Your task to perform on an android device: Open a new tab in the chrome app Image 0: 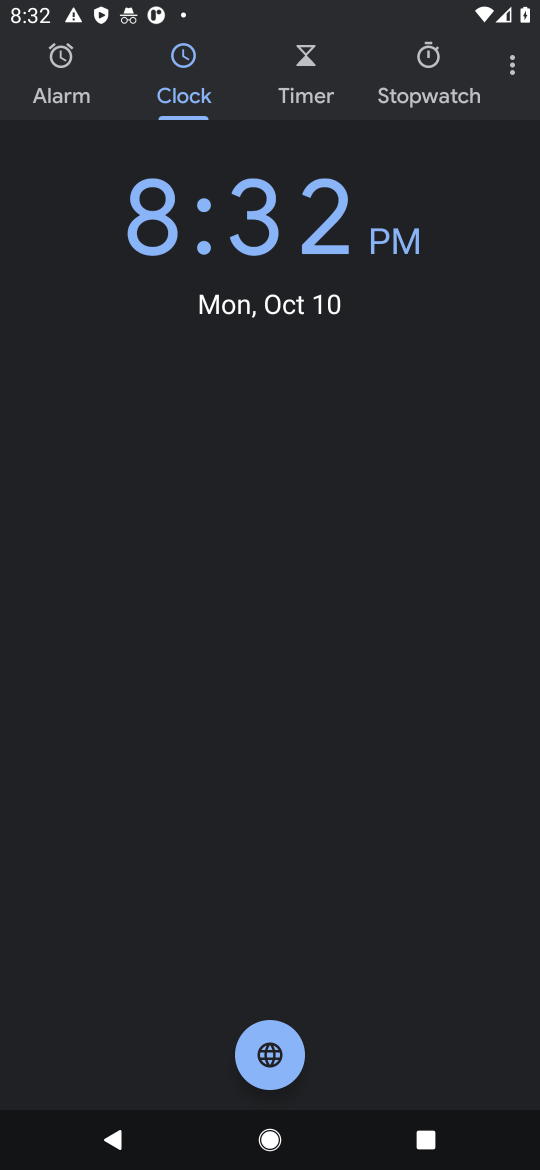
Step 0: drag from (358, 744) to (341, 183)
Your task to perform on an android device: Open a new tab in the chrome app Image 1: 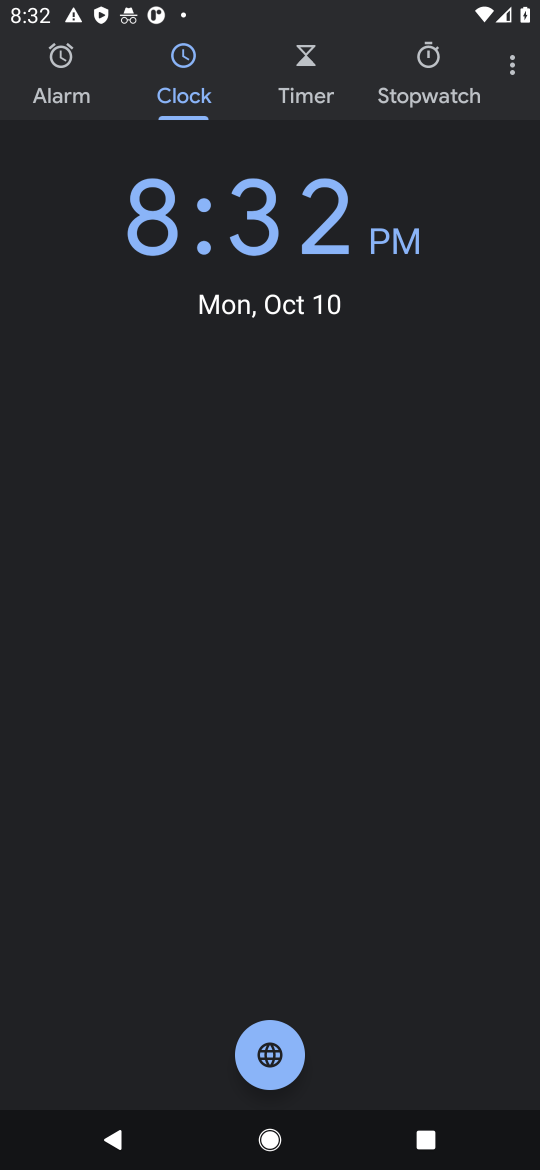
Step 1: press home button
Your task to perform on an android device: Open a new tab in the chrome app Image 2: 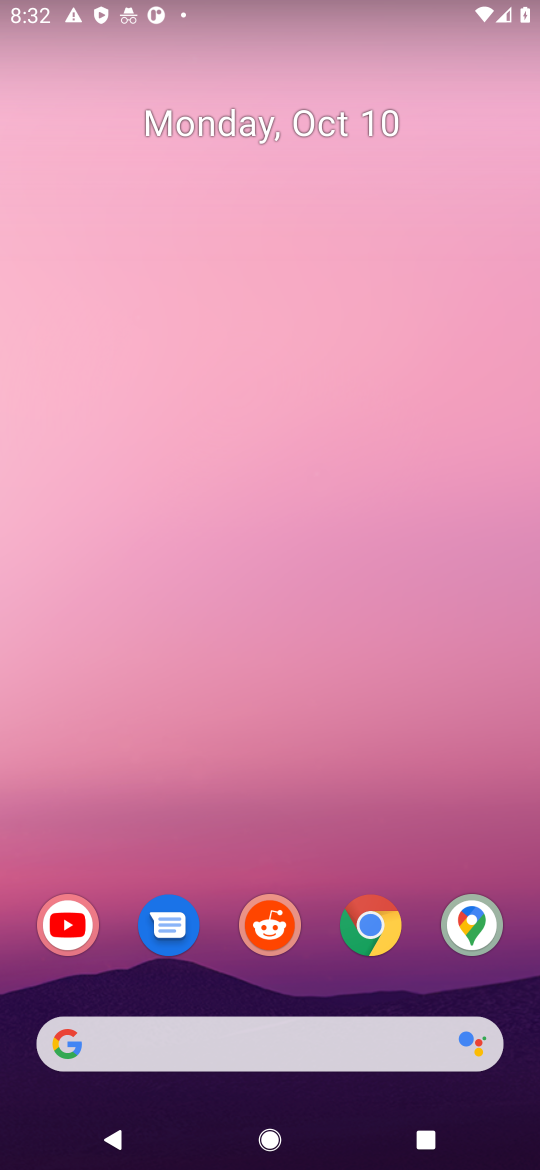
Step 2: drag from (322, 975) to (286, 237)
Your task to perform on an android device: Open a new tab in the chrome app Image 3: 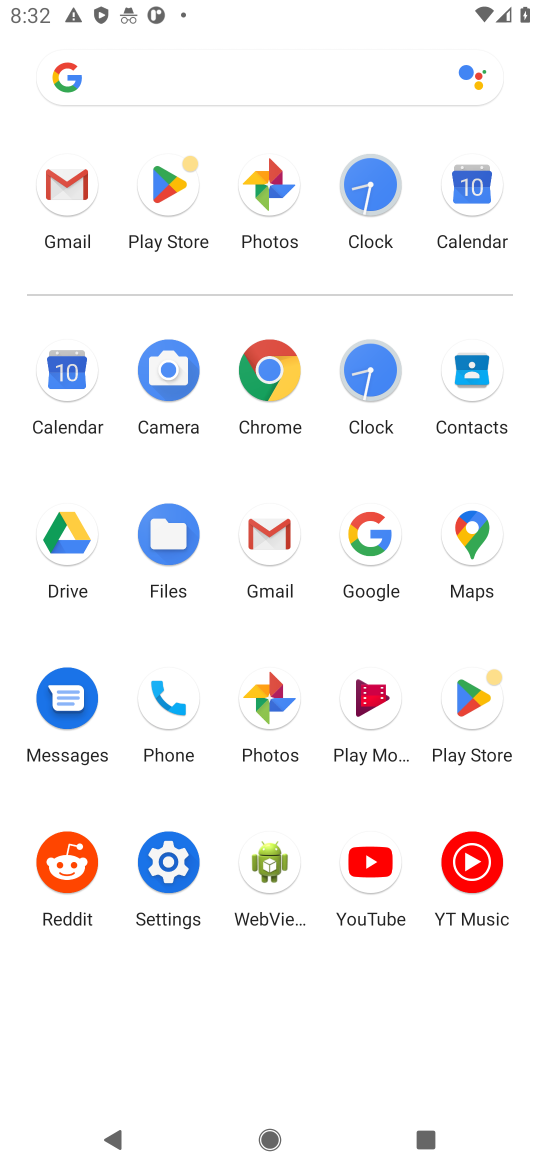
Step 3: click (269, 367)
Your task to perform on an android device: Open a new tab in the chrome app Image 4: 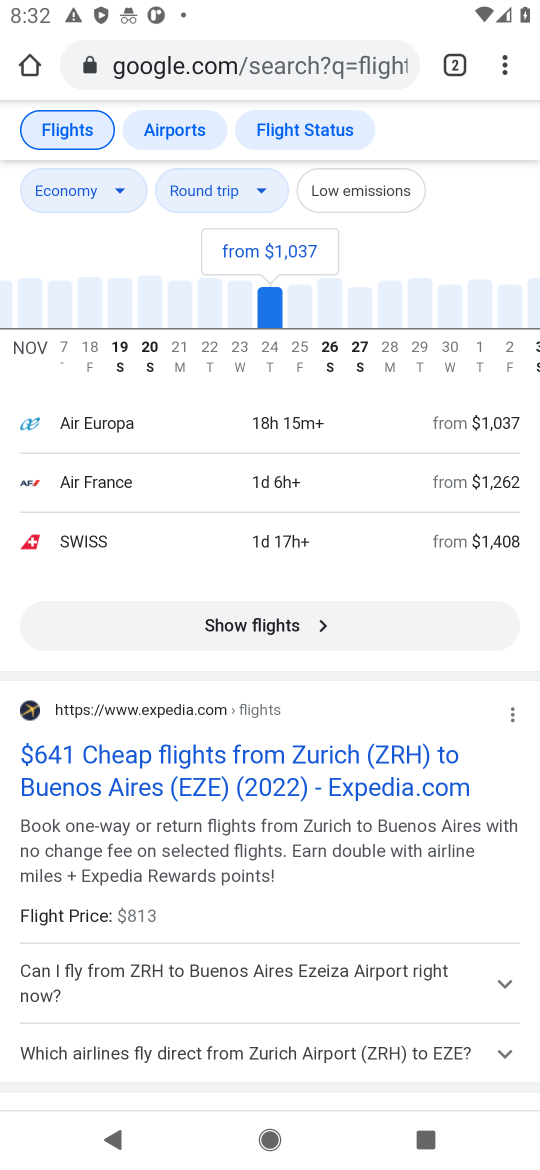
Step 4: task complete